Your task to perform on an android device: turn on bluetooth scan Image 0: 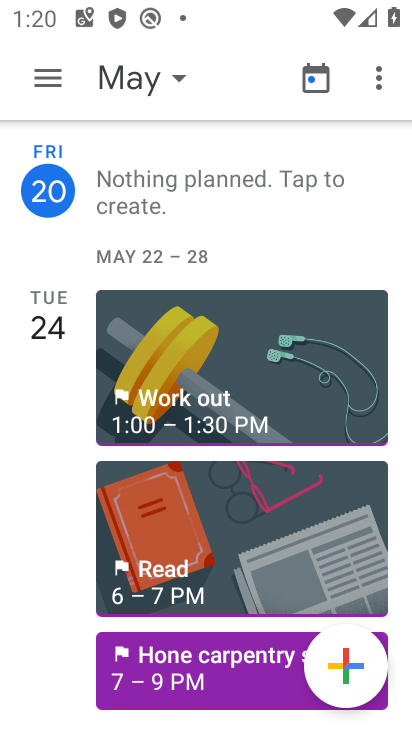
Step 0: press home button
Your task to perform on an android device: turn on bluetooth scan Image 1: 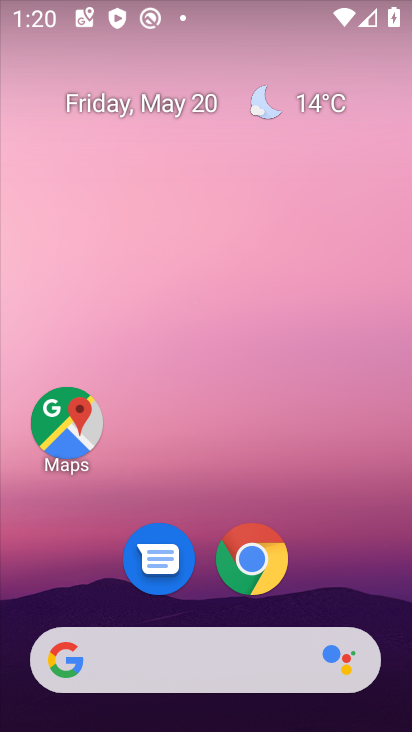
Step 1: drag from (339, 566) to (266, 72)
Your task to perform on an android device: turn on bluetooth scan Image 2: 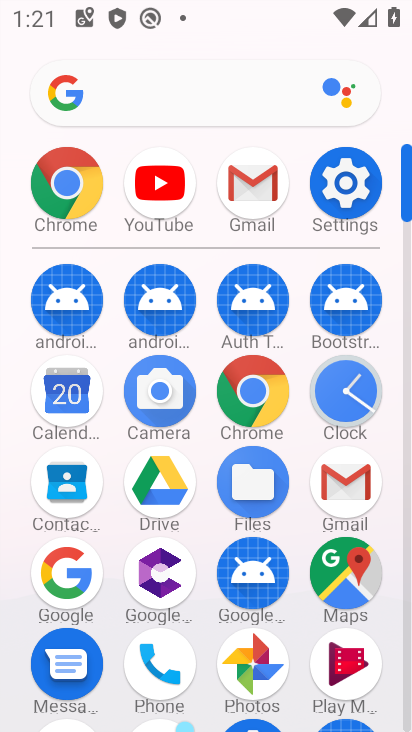
Step 2: click (332, 173)
Your task to perform on an android device: turn on bluetooth scan Image 3: 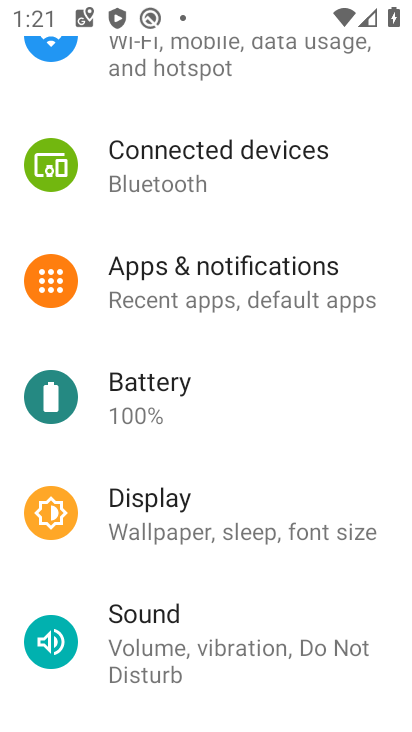
Step 3: drag from (155, 498) to (138, 189)
Your task to perform on an android device: turn on bluetooth scan Image 4: 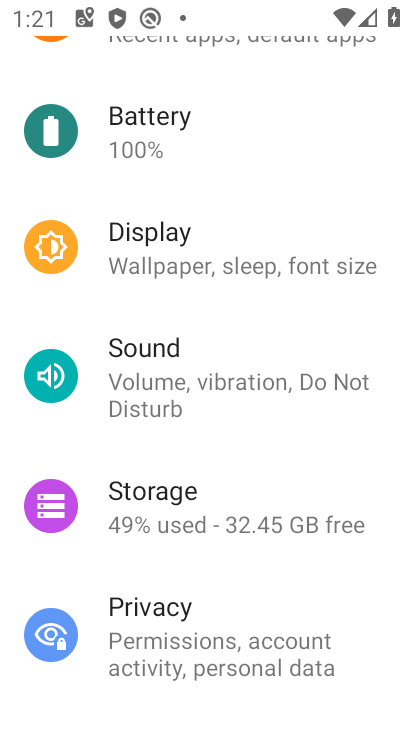
Step 4: drag from (78, 495) to (105, 187)
Your task to perform on an android device: turn on bluetooth scan Image 5: 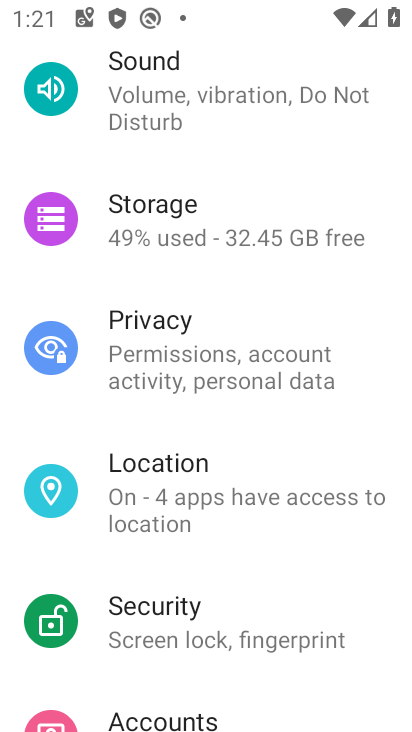
Step 5: click (122, 541)
Your task to perform on an android device: turn on bluetooth scan Image 6: 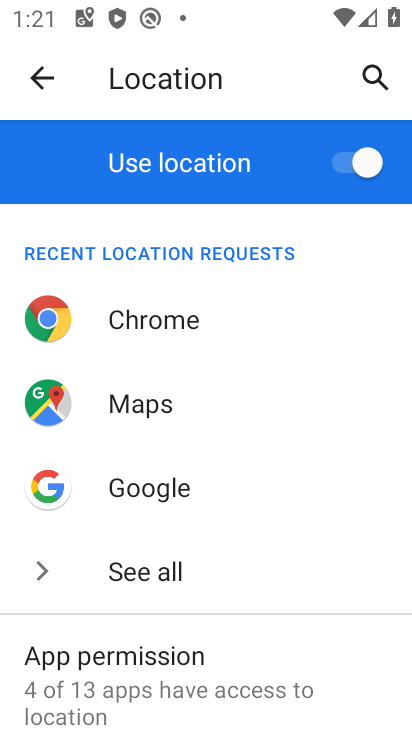
Step 6: drag from (202, 676) to (234, 236)
Your task to perform on an android device: turn on bluetooth scan Image 7: 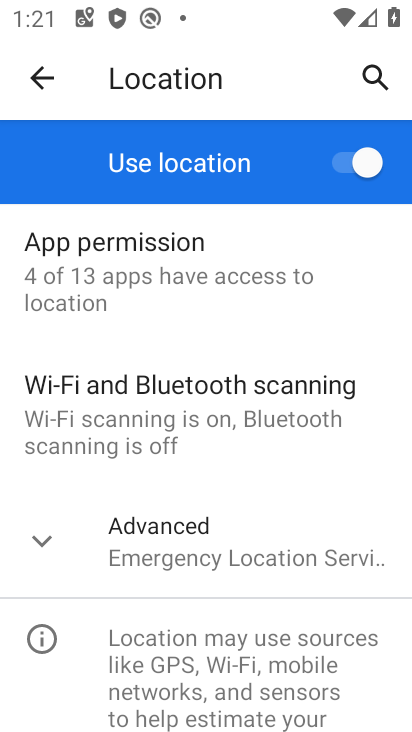
Step 7: drag from (177, 573) to (188, 382)
Your task to perform on an android device: turn on bluetooth scan Image 8: 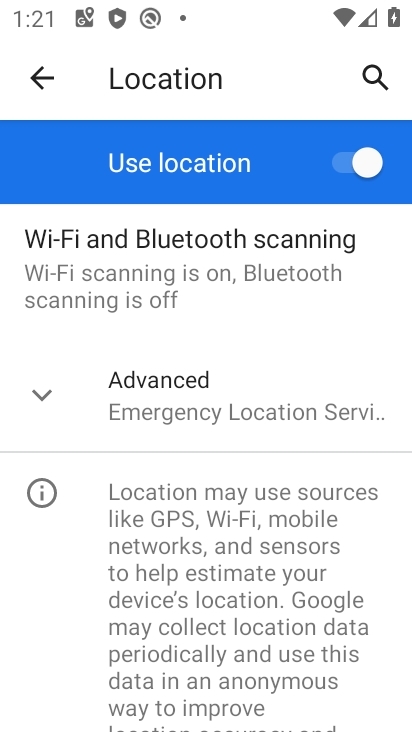
Step 8: click (281, 299)
Your task to perform on an android device: turn on bluetooth scan Image 9: 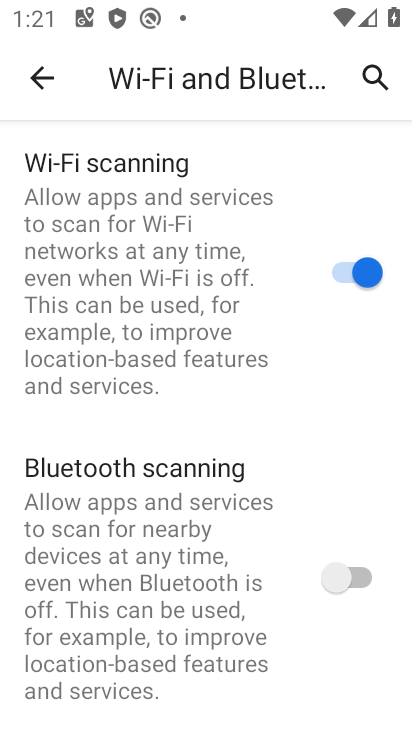
Step 9: click (302, 658)
Your task to perform on an android device: turn on bluetooth scan Image 10: 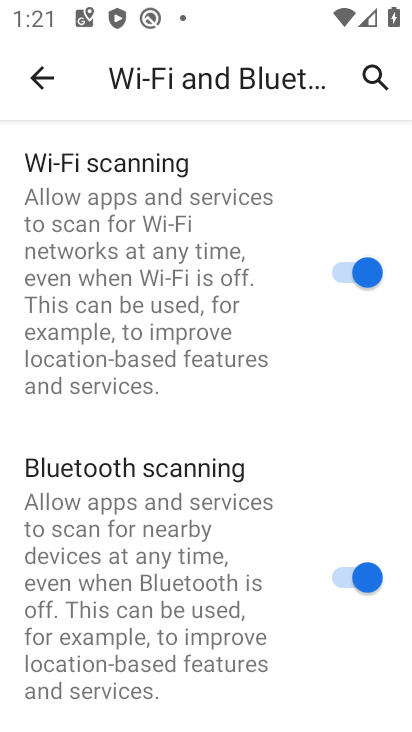
Step 10: task complete